Your task to perform on an android device: What's the weather going to be tomorrow? Image 0: 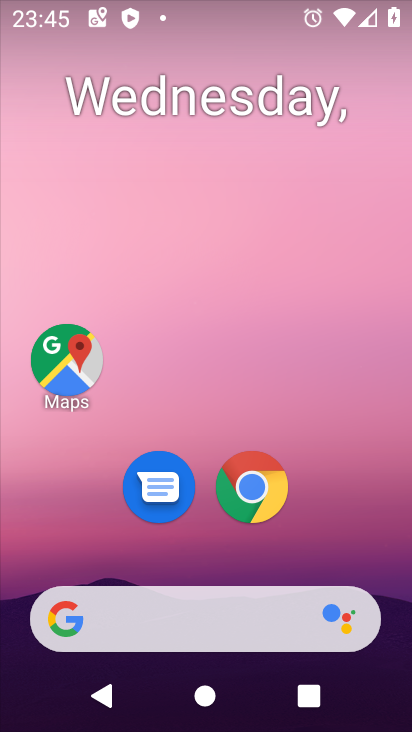
Step 0: click (122, 619)
Your task to perform on an android device: What's the weather going to be tomorrow? Image 1: 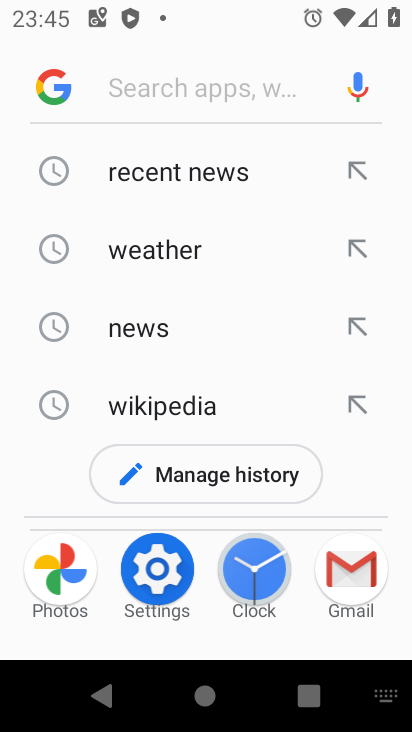
Step 1: click (145, 259)
Your task to perform on an android device: What's the weather going to be tomorrow? Image 2: 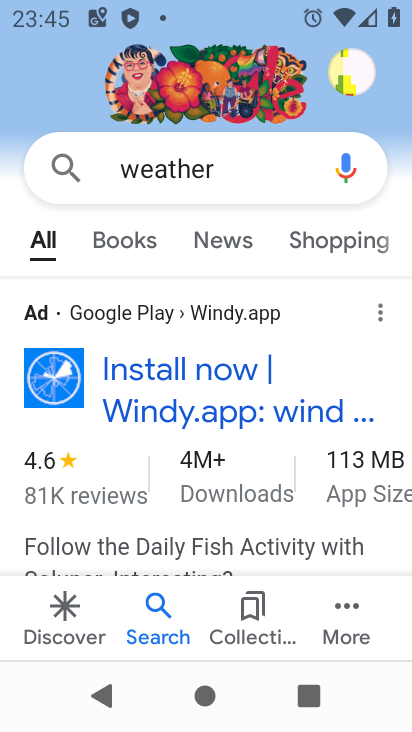
Step 2: drag from (171, 455) to (196, 184)
Your task to perform on an android device: What's the weather going to be tomorrow? Image 3: 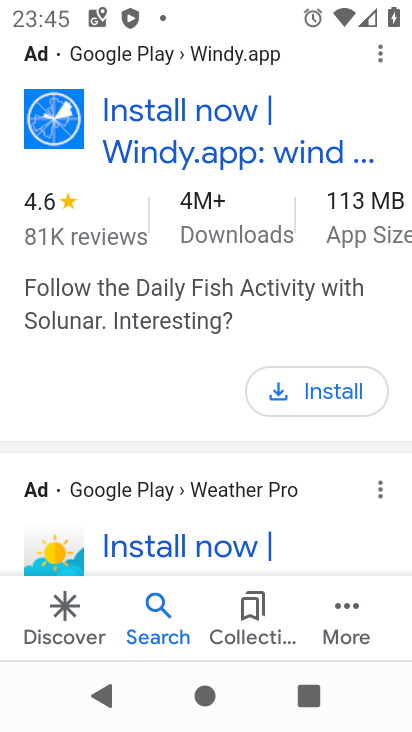
Step 3: drag from (160, 317) to (161, 569)
Your task to perform on an android device: What's the weather going to be tomorrow? Image 4: 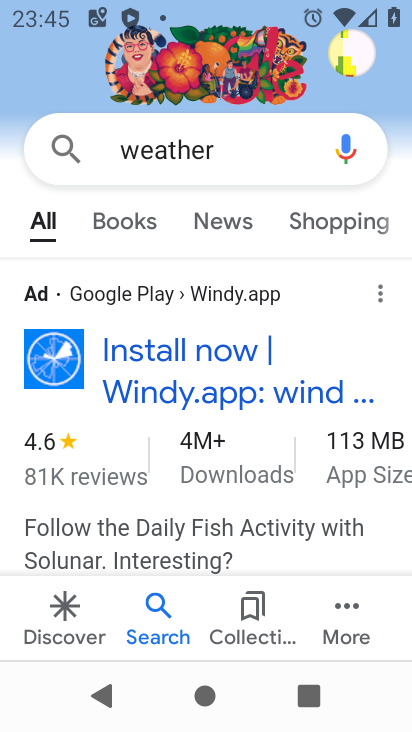
Step 4: click (223, 229)
Your task to perform on an android device: What's the weather going to be tomorrow? Image 5: 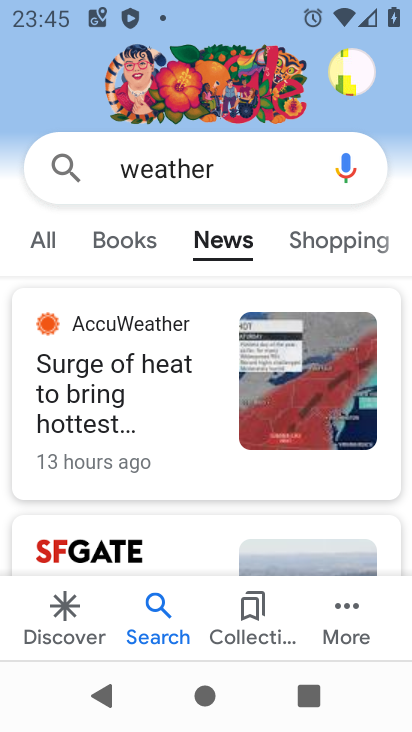
Step 5: press back button
Your task to perform on an android device: What's the weather going to be tomorrow? Image 6: 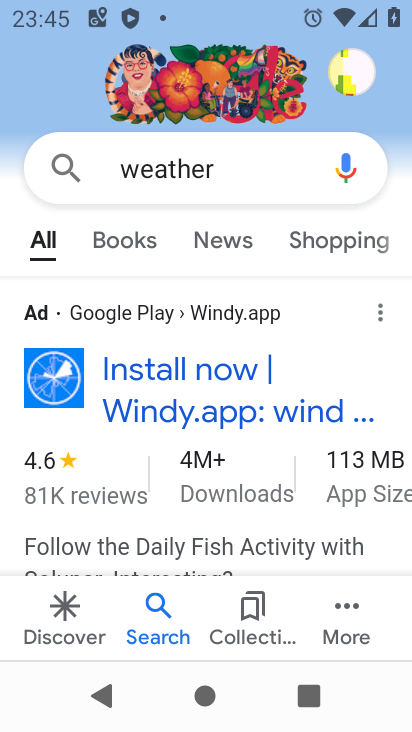
Step 6: click (226, 169)
Your task to perform on an android device: What's the weather going to be tomorrow? Image 7: 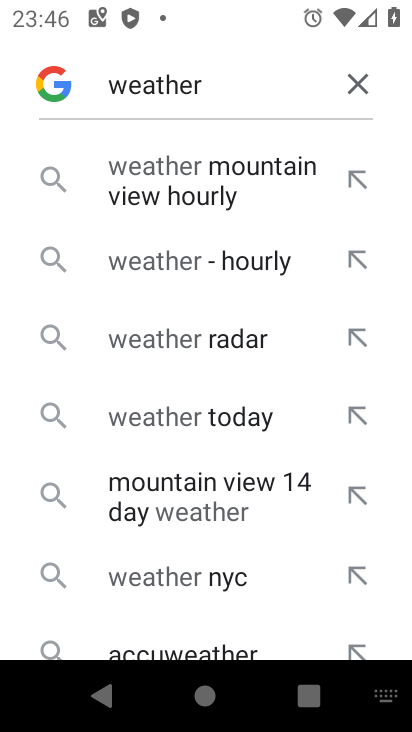
Step 7: type "tomorrow "
Your task to perform on an android device: What's the weather going to be tomorrow? Image 8: 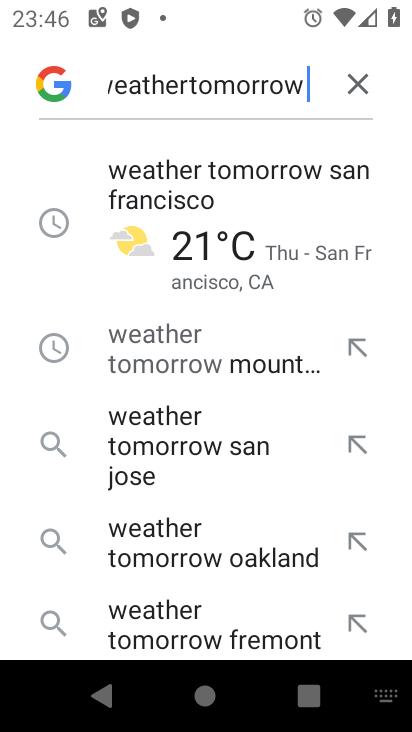
Step 8: click (350, 88)
Your task to perform on an android device: What's the weather going to be tomorrow? Image 9: 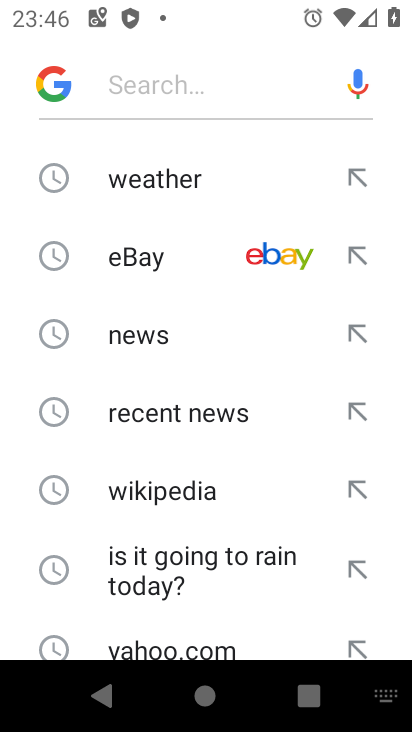
Step 9: click (156, 84)
Your task to perform on an android device: What's the weather going to be tomorrow? Image 10: 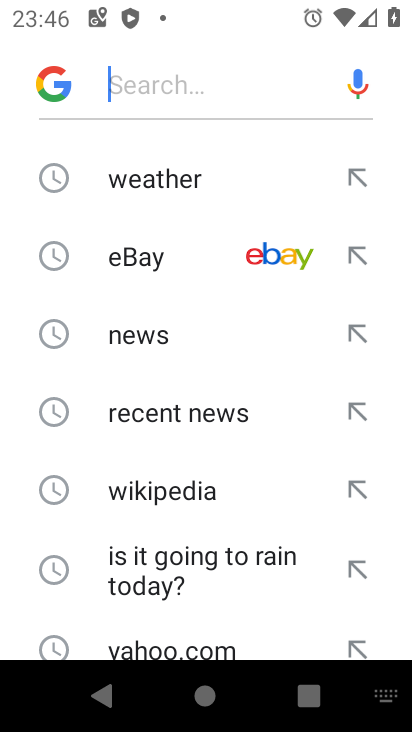
Step 10: click (142, 185)
Your task to perform on an android device: What's the weather going to be tomorrow? Image 11: 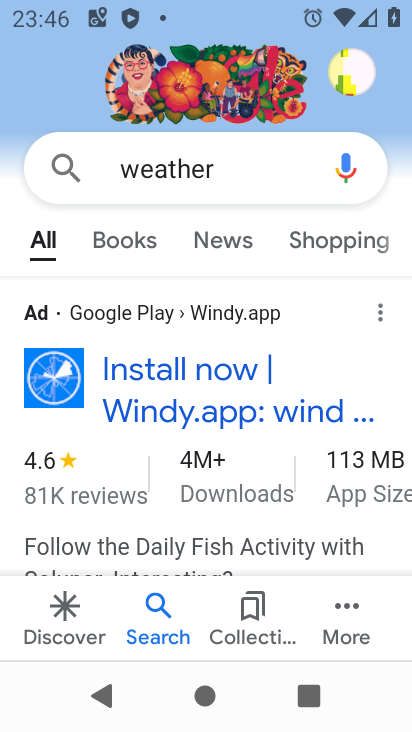
Step 11: drag from (142, 418) to (163, 112)
Your task to perform on an android device: What's the weather going to be tomorrow? Image 12: 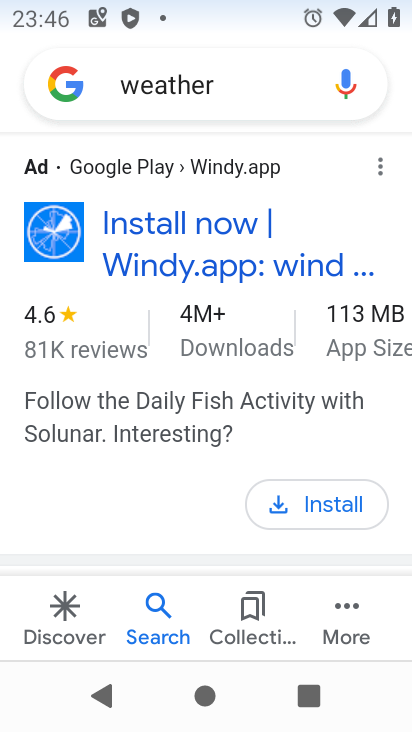
Step 12: drag from (166, 458) to (186, 57)
Your task to perform on an android device: What's the weather going to be tomorrow? Image 13: 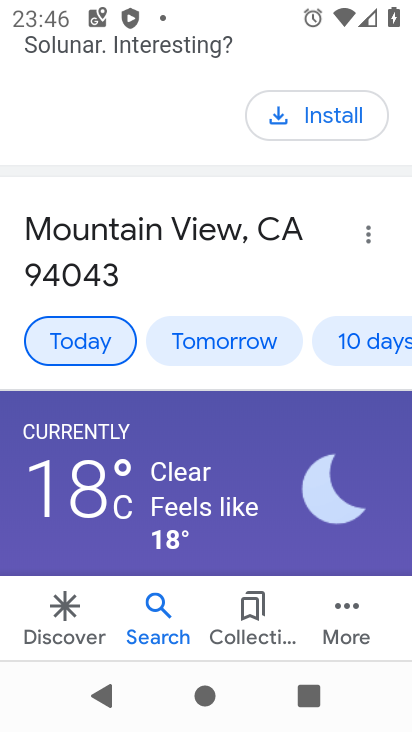
Step 13: drag from (170, 410) to (192, 139)
Your task to perform on an android device: What's the weather going to be tomorrow? Image 14: 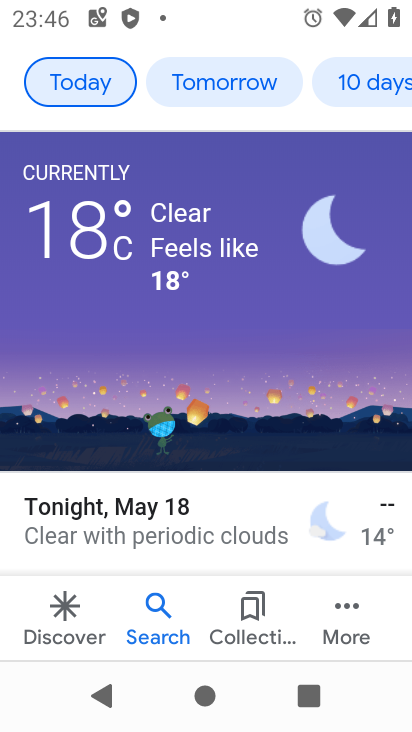
Step 14: click (233, 95)
Your task to perform on an android device: What's the weather going to be tomorrow? Image 15: 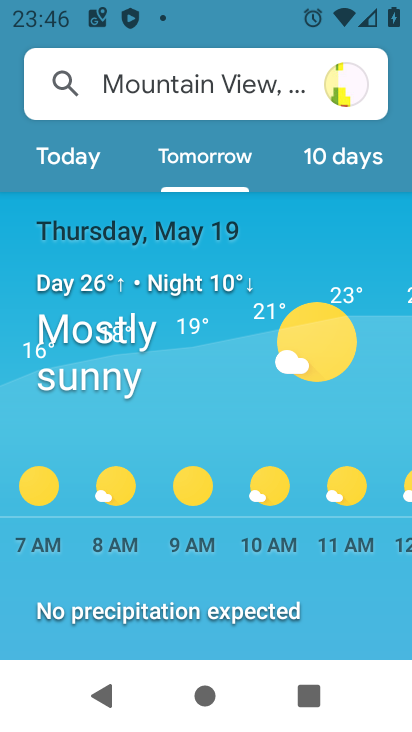
Step 15: task complete